Your task to perform on an android device: Go to accessibility settings Image 0: 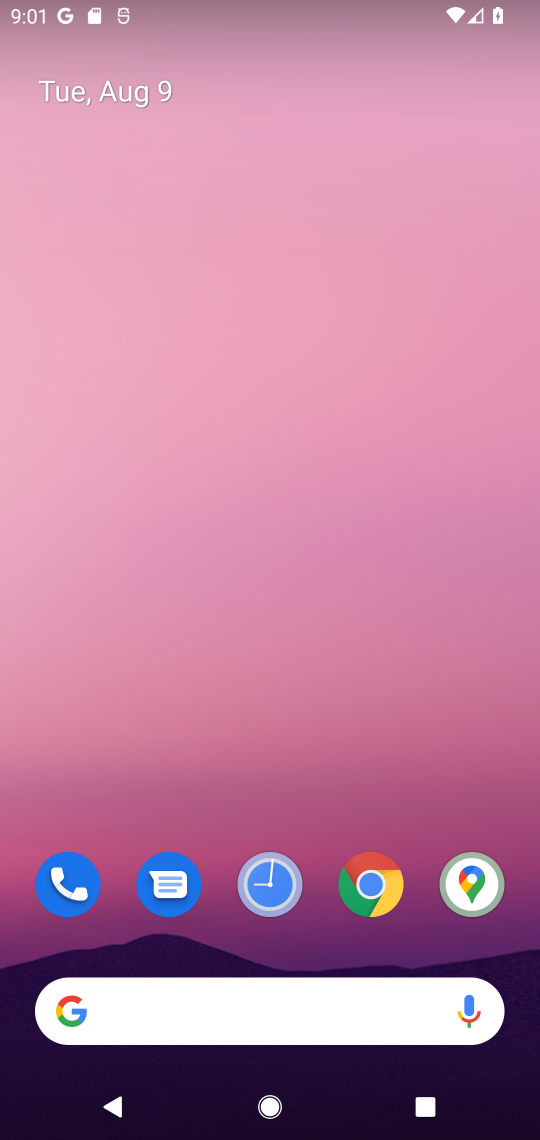
Step 0: drag from (261, 607) to (279, 164)
Your task to perform on an android device: Go to accessibility settings Image 1: 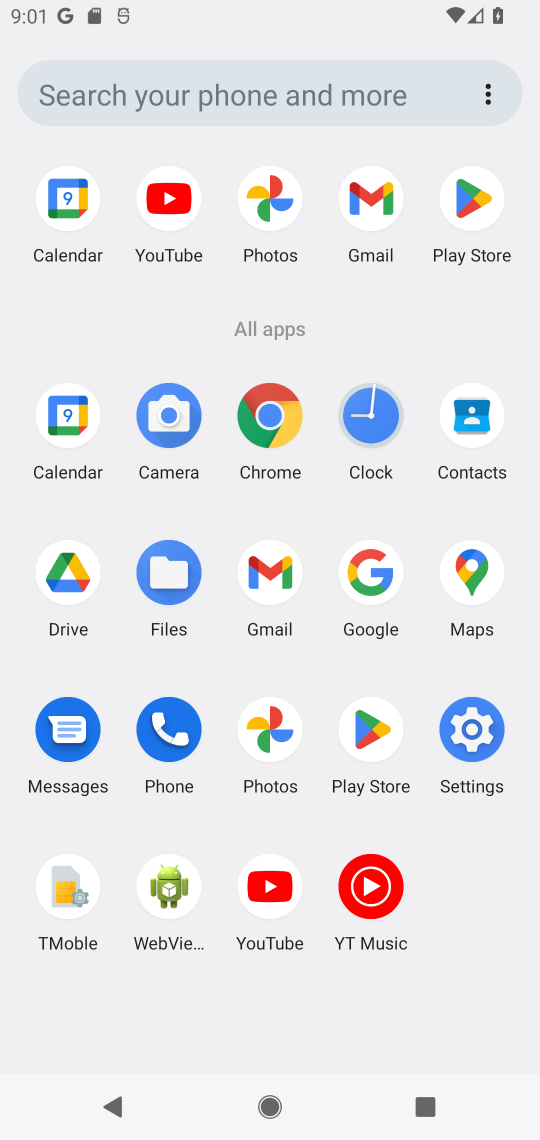
Step 1: click (489, 721)
Your task to perform on an android device: Go to accessibility settings Image 2: 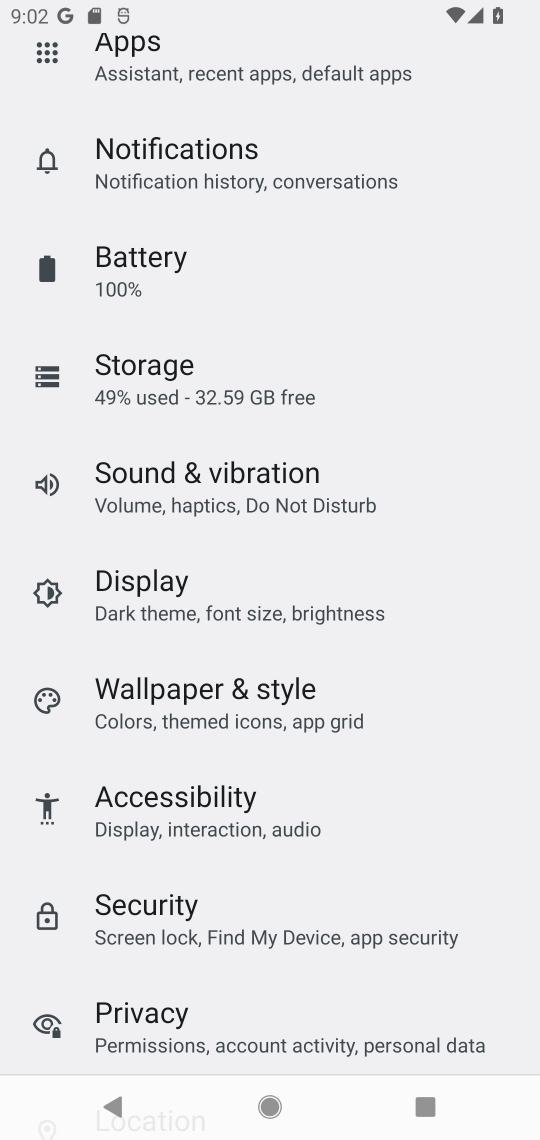
Step 2: click (204, 791)
Your task to perform on an android device: Go to accessibility settings Image 3: 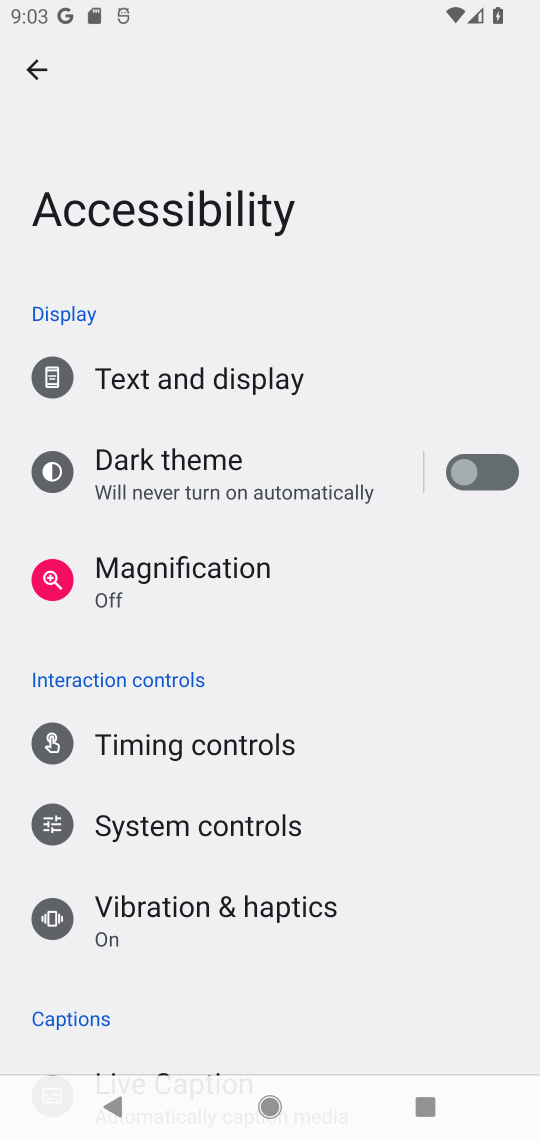
Step 3: task complete